Your task to perform on an android device: Open privacy settings Image 0: 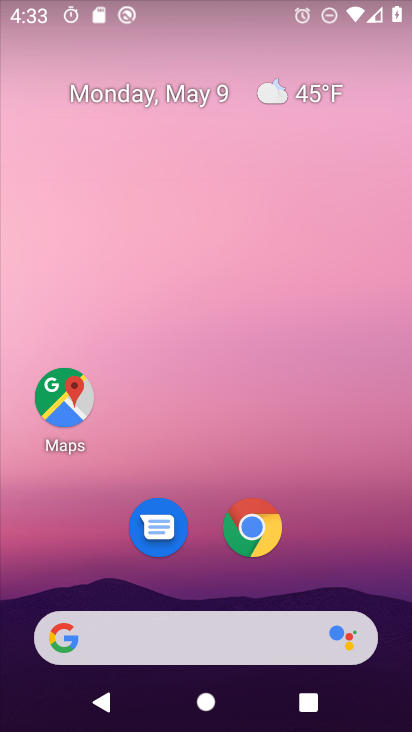
Step 0: drag from (369, 576) to (357, 140)
Your task to perform on an android device: Open privacy settings Image 1: 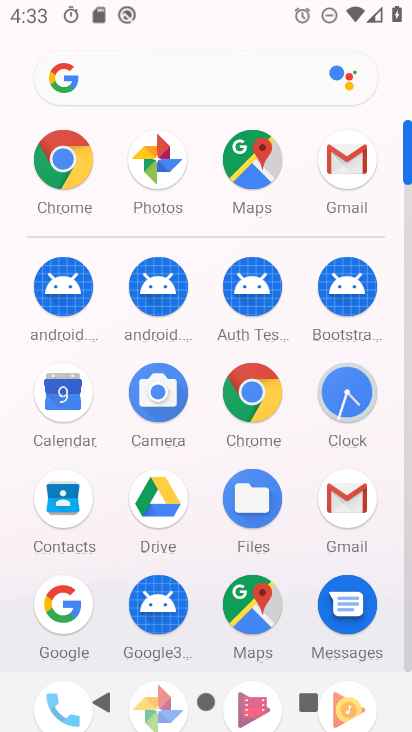
Step 1: click (410, 635)
Your task to perform on an android device: Open privacy settings Image 2: 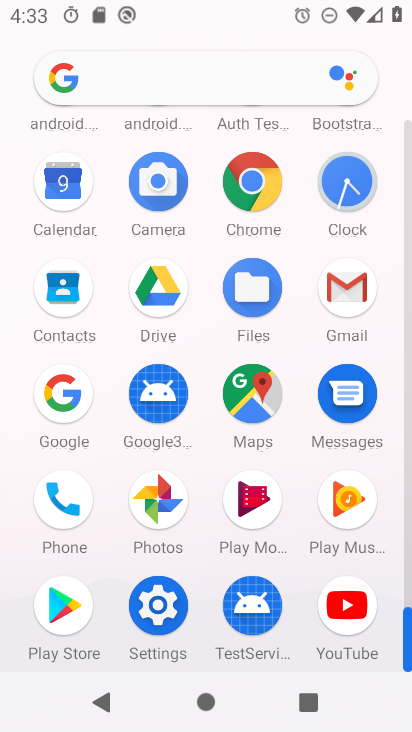
Step 2: click (171, 617)
Your task to perform on an android device: Open privacy settings Image 3: 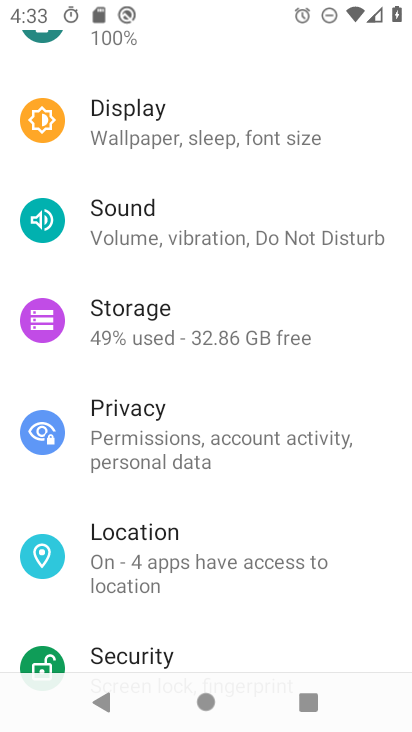
Step 3: click (292, 461)
Your task to perform on an android device: Open privacy settings Image 4: 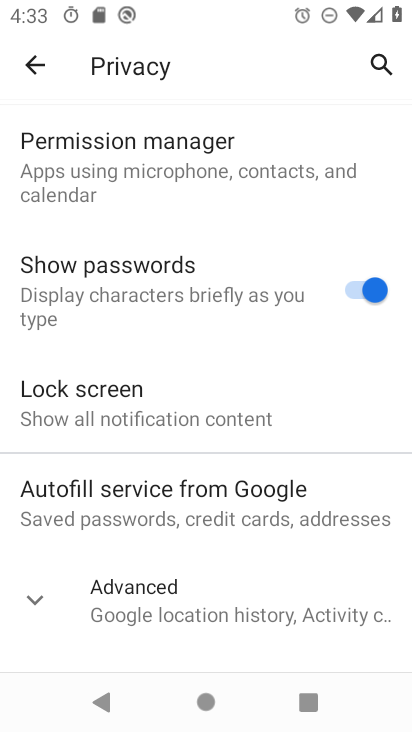
Step 4: task complete